Your task to perform on an android device: toggle wifi Image 0: 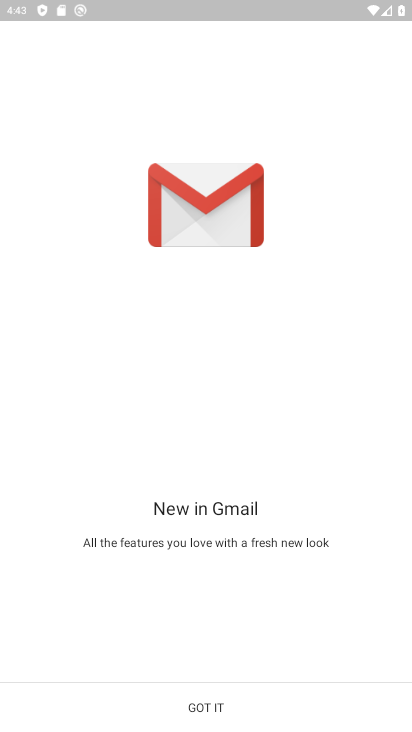
Step 0: drag from (218, 9) to (233, 577)
Your task to perform on an android device: toggle wifi Image 1: 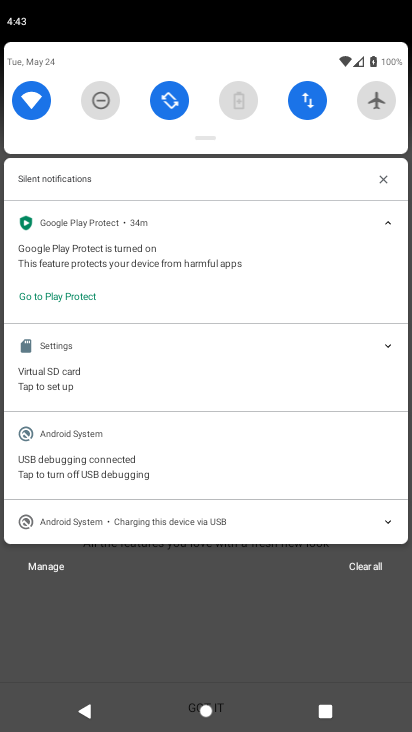
Step 1: click (45, 102)
Your task to perform on an android device: toggle wifi Image 2: 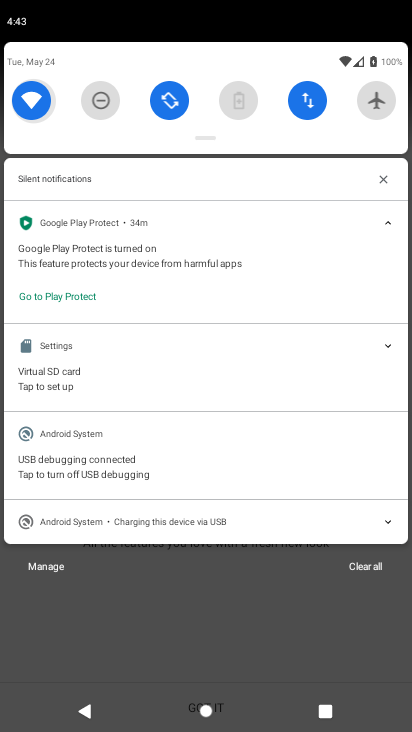
Step 2: click (45, 102)
Your task to perform on an android device: toggle wifi Image 3: 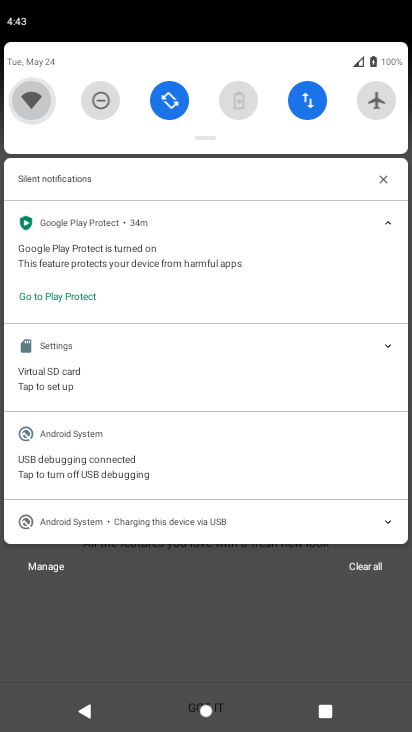
Step 3: click (45, 102)
Your task to perform on an android device: toggle wifi Image 4: 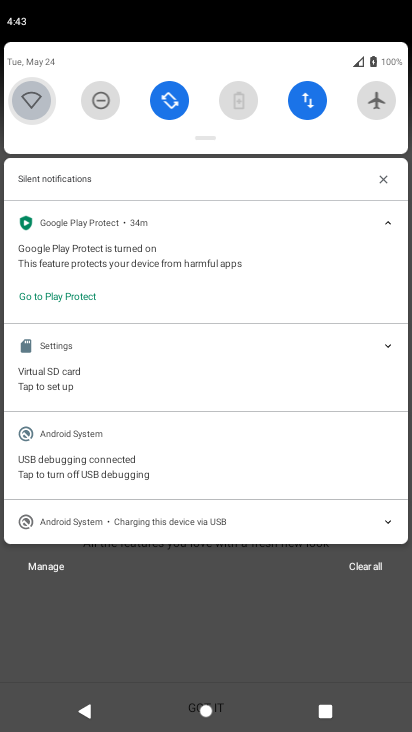
Step 4: click (45, 102)
Your task to perform on an android device: toggle wifi Image 5: 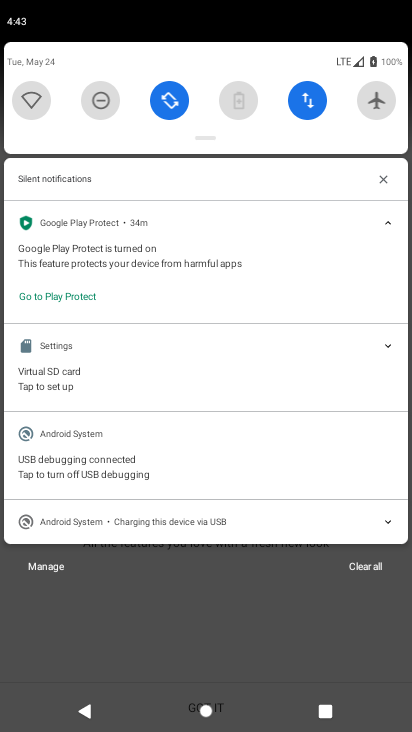
Step 5: click (45, 102)
Your task to perform on an android device: toggle wifi Image 6: 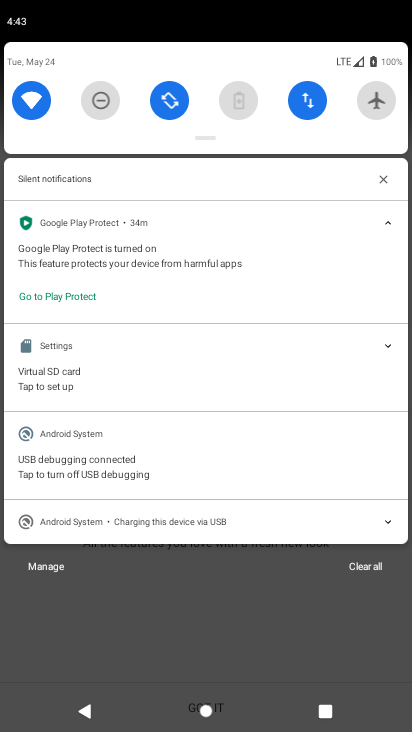
Step 6: task complete